Your task to perform on an android device: Go to privacy settings Image 0: 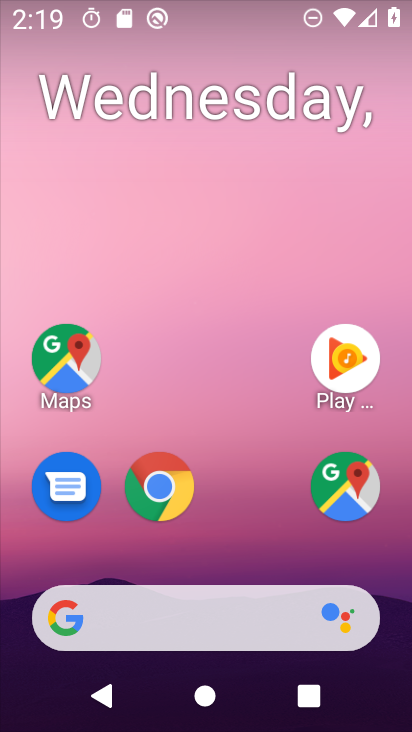
Step 0: drag from (224, 529) to (249, 179)
Your task to perform on an android device: Go to privacy settings Image 1: 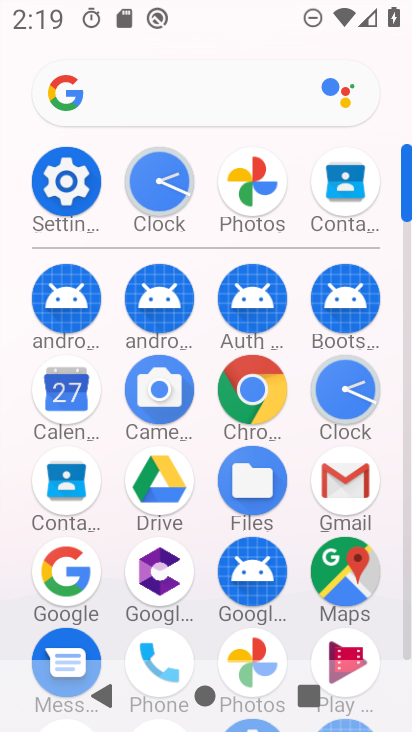
Step 1: click (63, 187)
Your task to perform on an android device: Go to privacy settings Image 2: 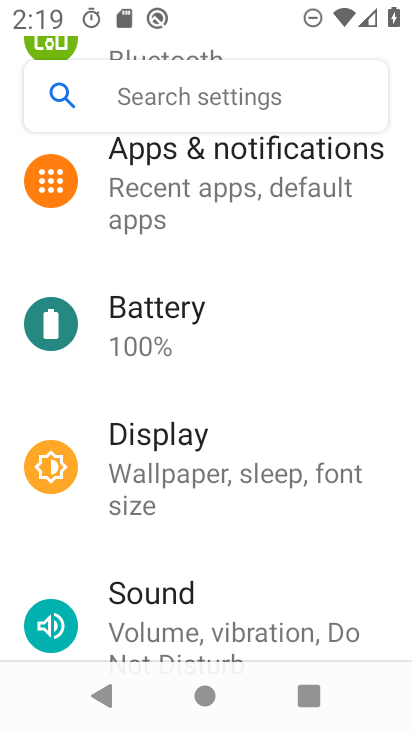
Step 2: drag from (339, 306) to (370, 430)
Your task to perform on an android device: Go to privacy settings Image 3: 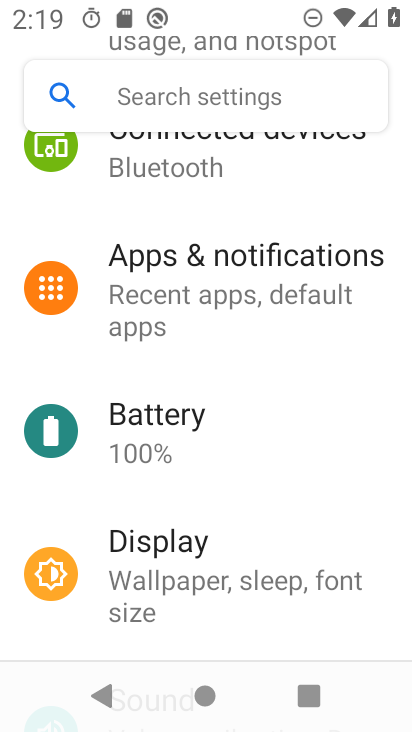
Step 3: drag from (351, 343) to (376, 466)
Your task to perform on an android device: Go to privacy settings Image 4: 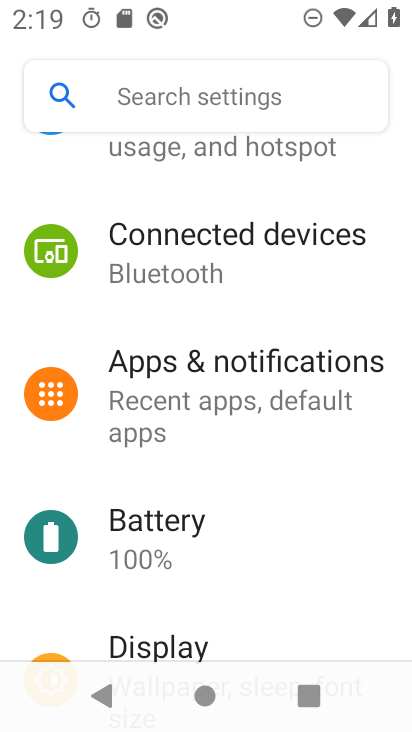
Step 4: drag from (350, 285) to (376, 420)
Your task to perform on an android device: Go to privacy settings Image 5: 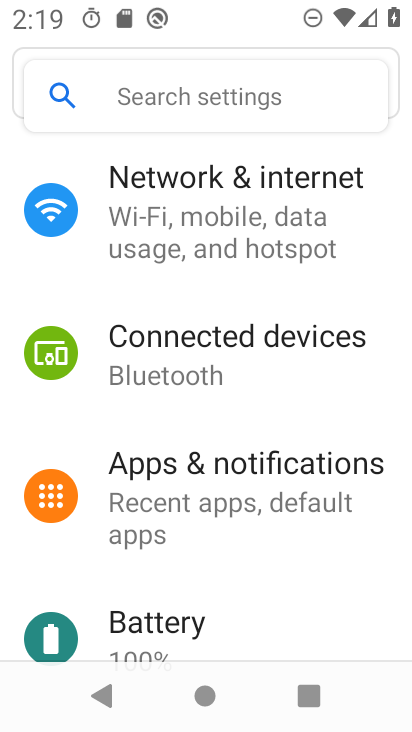
Step 5: drag from (353, 226) to (383, 380)
Your task to perform on an android device: Go to privacy settings Image 6: 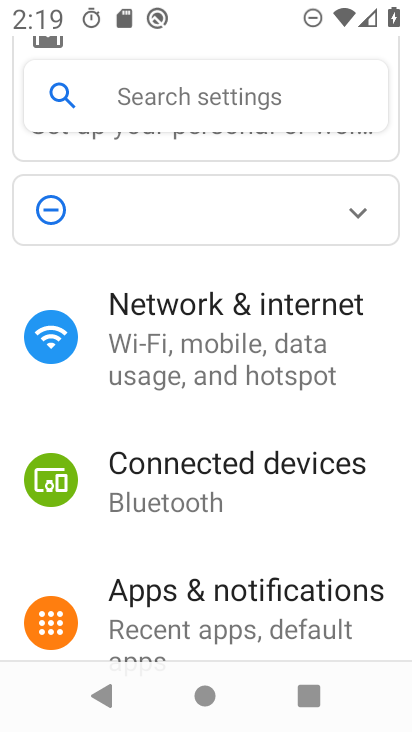
Step 6: drag from (345, 561) to (326, 446)
Your task to perform on an android device: Go to privacy settings Image 7: 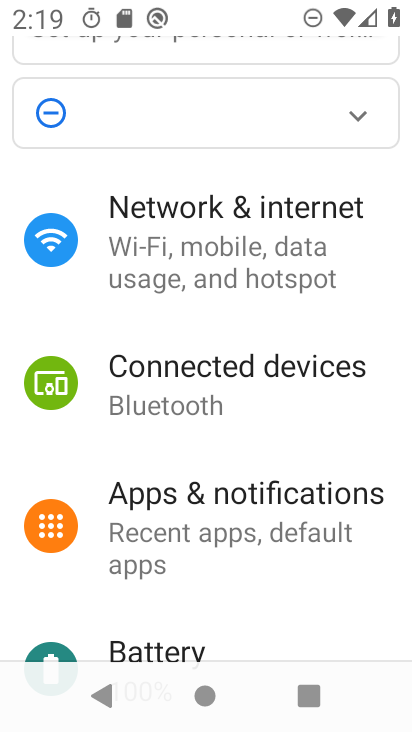
Step 7: drag from (236, 555) to (242, 486)
Your task to perform on an android device: Go to privacy settings Image 8: 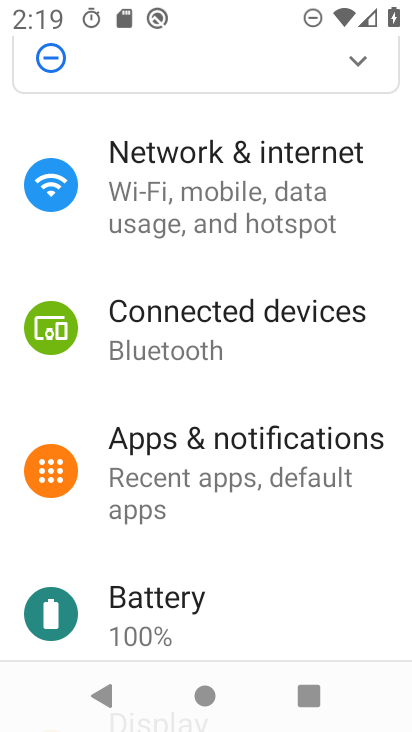
Step 8: drag from (286, 582) to (286, 514)
Your task to perform on an android device: Go to privacy settings Image 9: 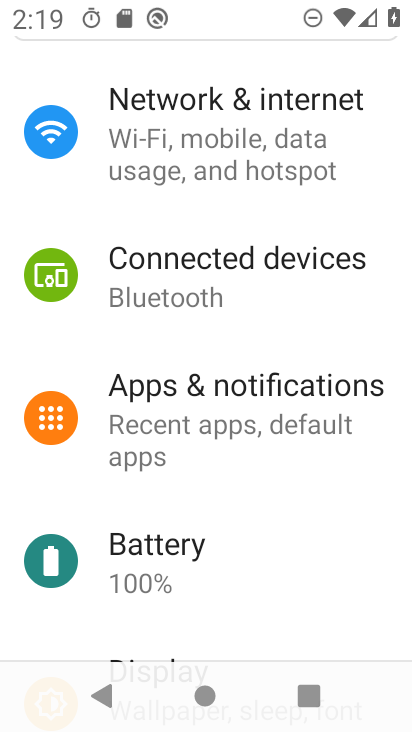
Step 9: drag from (296, 592) to (295, 511)
Your task to perform on an android device: Go to privacy settings Image 10: 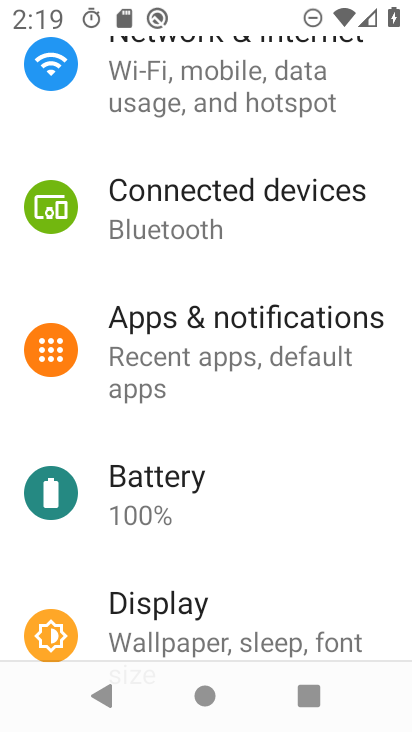
Step 10: drag from (297, 554) to (291, 412)
Your task to perform on an android device: Go to privacy settings Image 11: 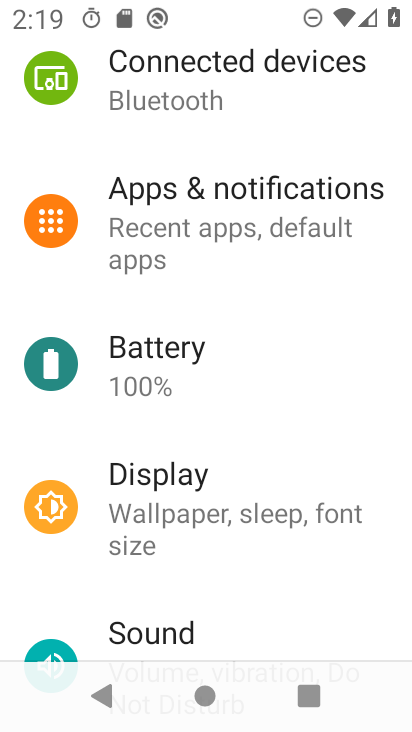
Step 11: drag from (291, 553) to (290, 452)
Your task to perform on an android device: Go to privacy settings Image 12: 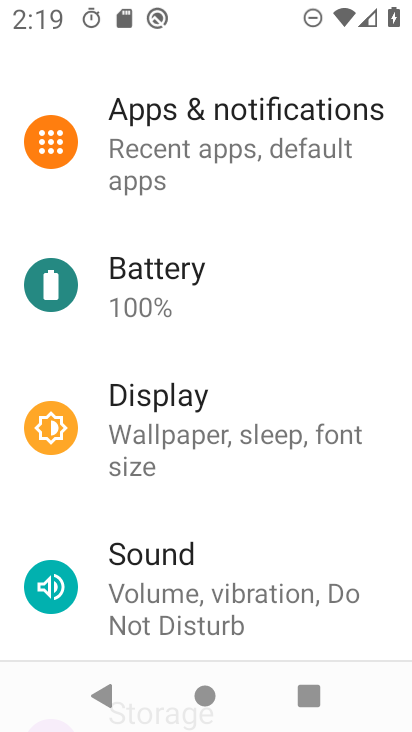
Step 12: drag from (284, 528) to (284, 427)
Your task to perform on an android device: Go to privacy settings Image 13: 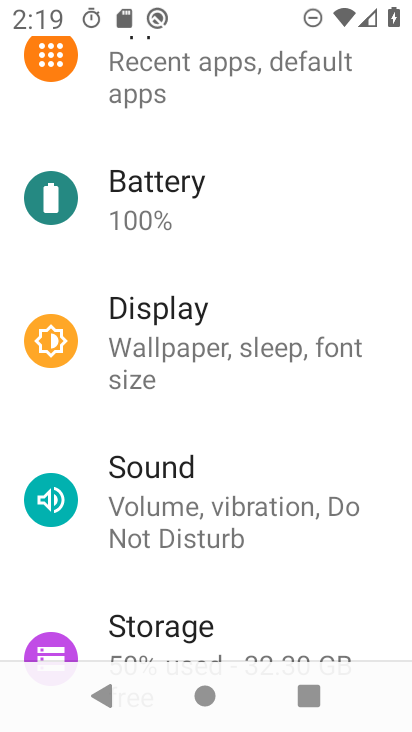
Step 13: drag from (302, 565) to (300, 457)
Your task to perform on an android device: Go to privacy settings Image 14: 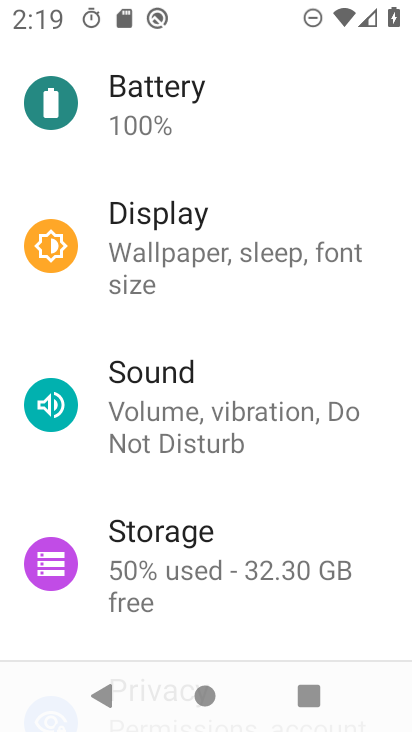
Step 14: drag from (315, 609) to (316, 481)
Your task to perform on an android device: Go to privacy settings Image 15: 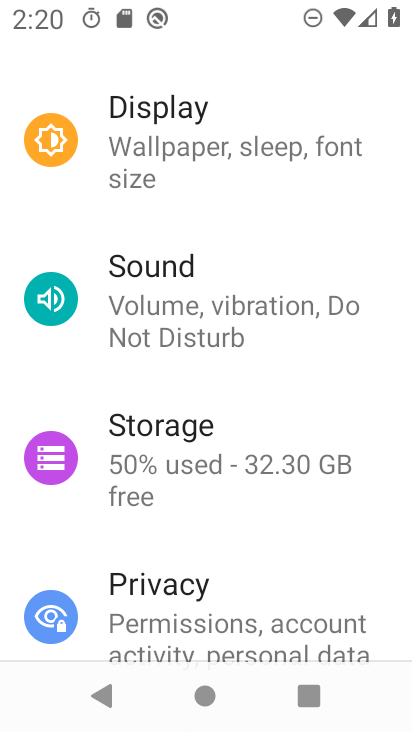
Step 15: drag from (311, 583) to (308, 433)
Your task to perform on an android device: Go to privacy settings Image 16: 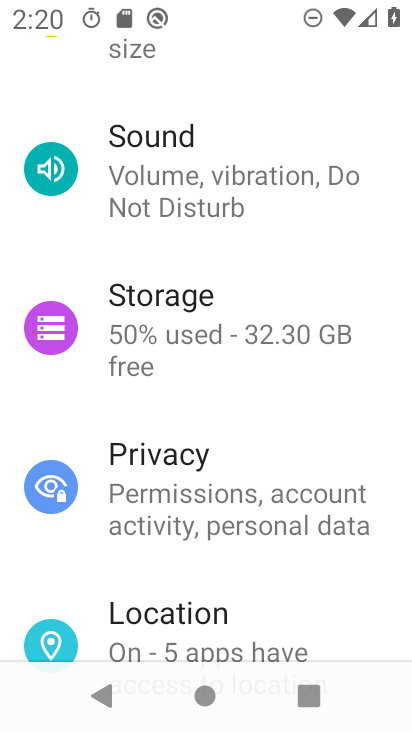
Step 16: drag from (296, 564) to (293, 450)
Your task to perform on an android device: Go to privacy settings Image 17: 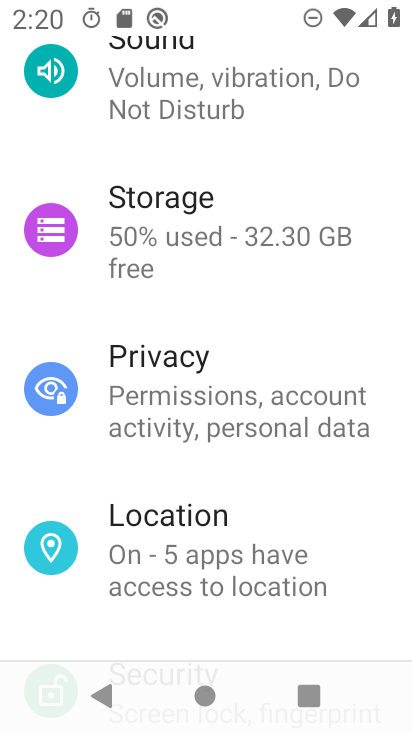
Step 17: drag from (311, 469) to (322, 296)
Your task to perform on an android device: Go to privacy settings Image 18: 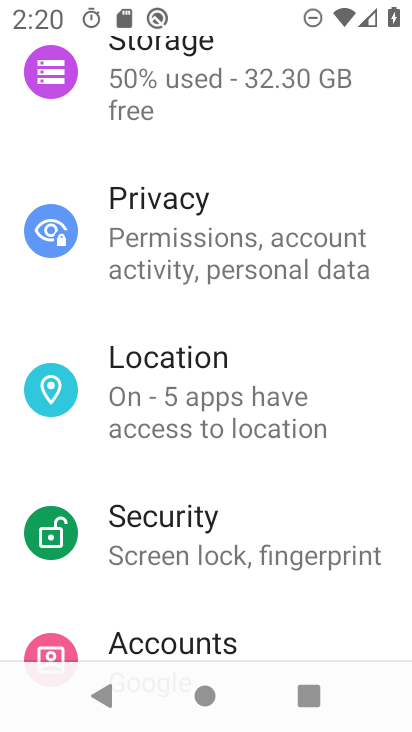
Step 18: drag from (335, 470) to (350, 320)
Your task to perform on an android device: Go to privacy settings Image 19: 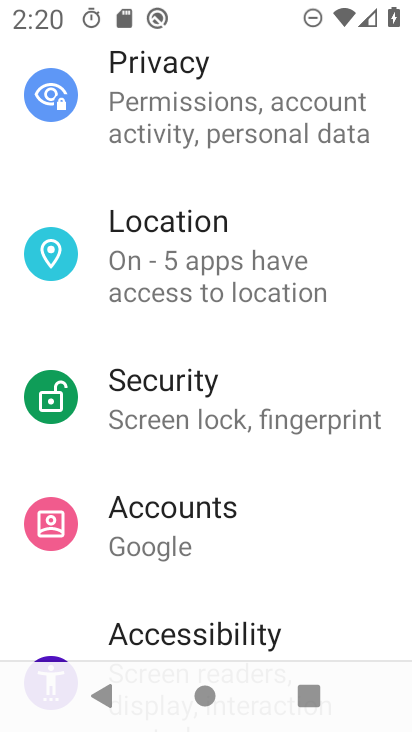
Step 19: drag from (292, 439) to (299, 324)
Your task to perform on an android device: Go to privacy settings Image 20: 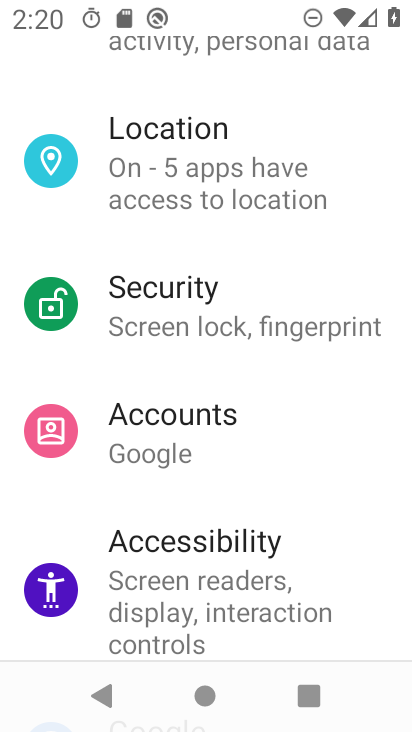
Step 20: drag from (278, 466) to (411, 367)
Your task to perform on an android device: Go to privacy settings Image 21: 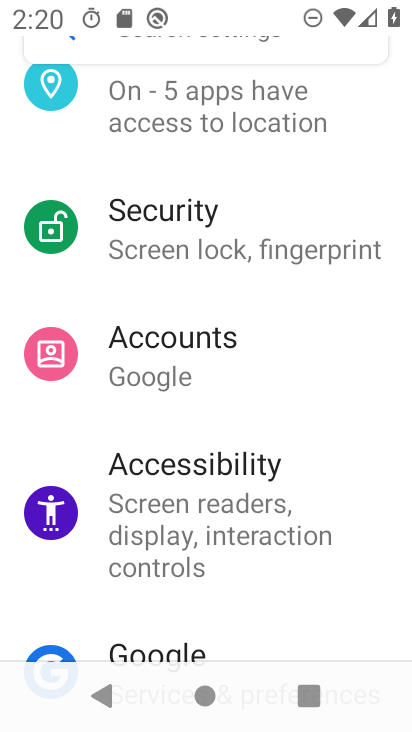
Step 21: drag from (374, 415) to (102, 711)
Your task to perform on an android device: Go to privacy settings Image 22: 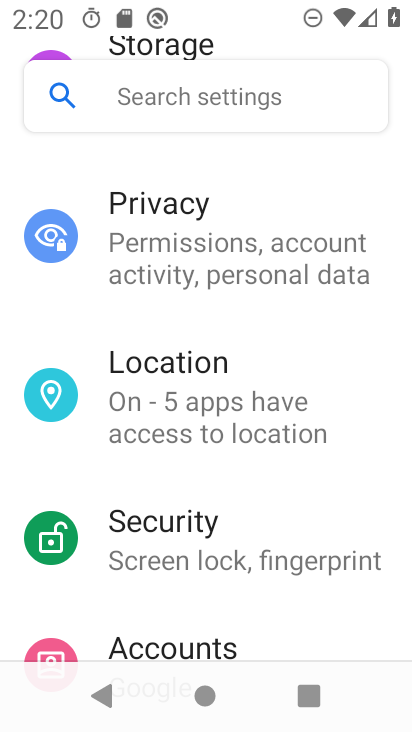
Step 22: drag from (364, 360) to (365, 442)
Your task to perform on an android device: Go to privacy settings Image 23: 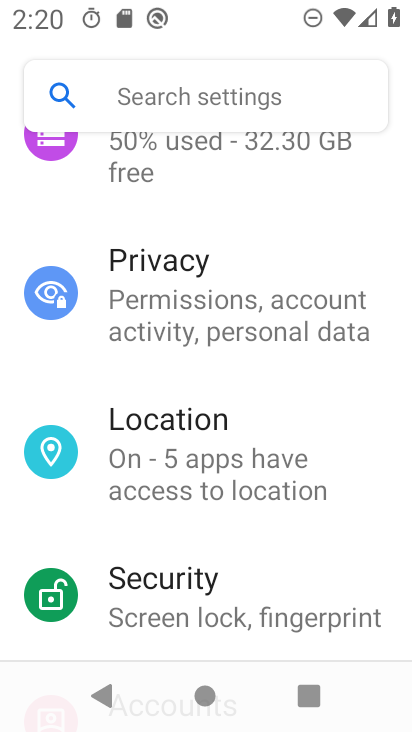
Step 23: drag from (351, 268) to (356, 367)
Your task to perform on an android device: Go to privacy settings Image 24: 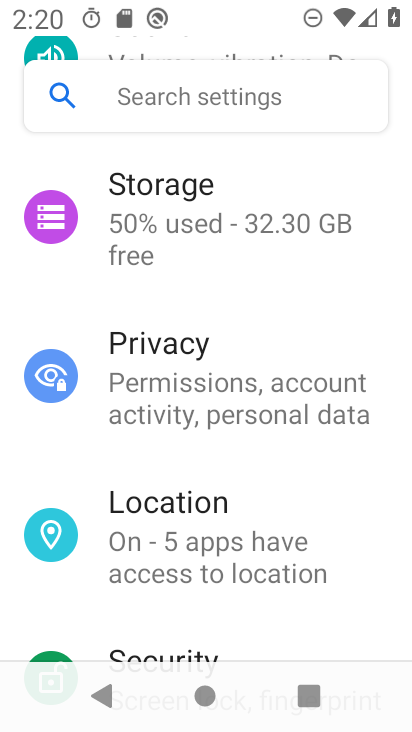
Step 24: drag from (314, 274) to (319, 372)
Your task to perform on an android device: Go to privacy settings Image 25: 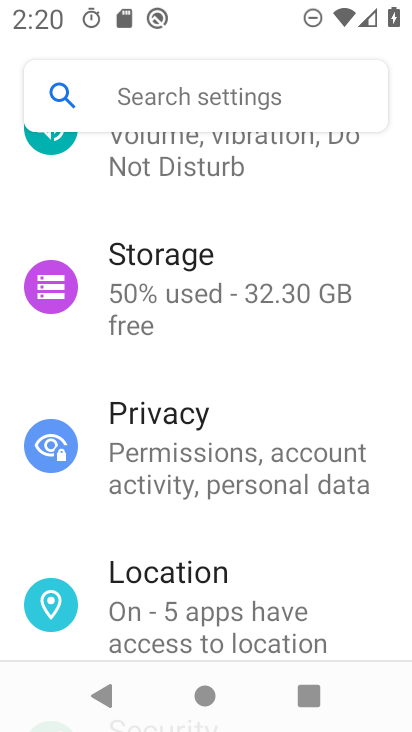
Step 25: drag from (326, 407) to (331, 213)
Your task to perform on an android device: Go to privacy settings Image 26: 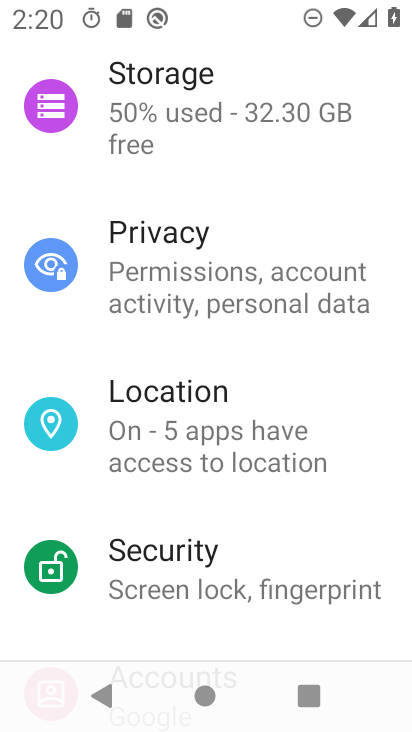
Step 26: click (321, 275)
Your task to perform on an android device: Go to privacy settings Image 27: 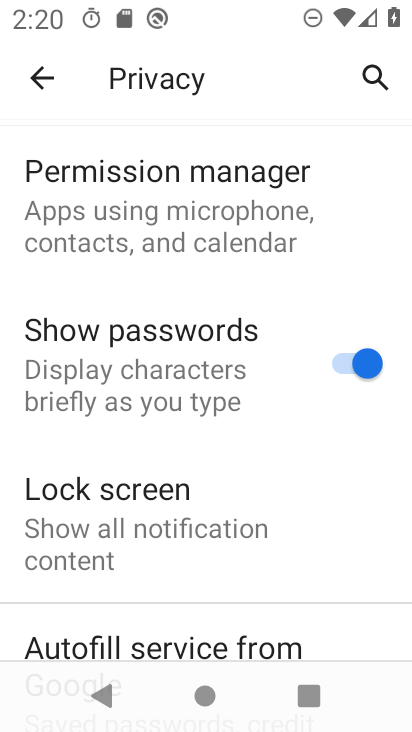
Step 27: task complete